Your task to perform on an android device: open sync settings in chrome Image 0: 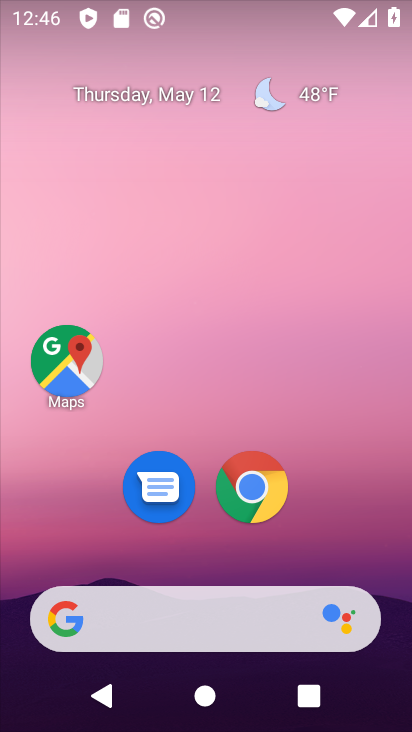
Step 0: click (249, 493)
Your task to perform on an android device: open sync settings in chrome Image 1: 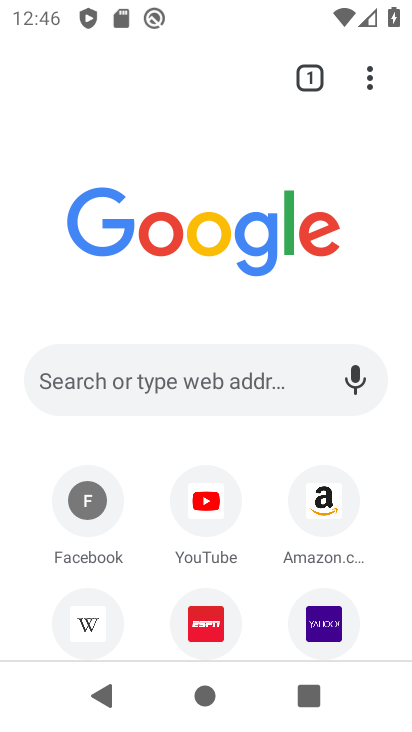
Step 1: click (379, 77)
Your task to perform on an android device: open sync settings in chrome Image 2: 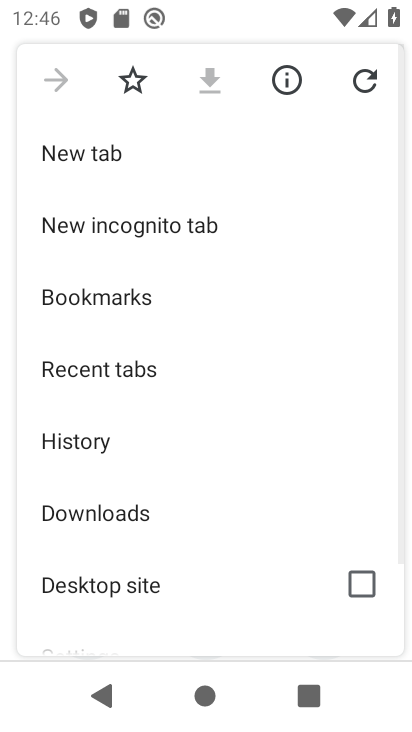
Step 2: drag from (200, 363) to (240, 46)
Your task to perform on an android device: open sync settings in chrome Image 3: 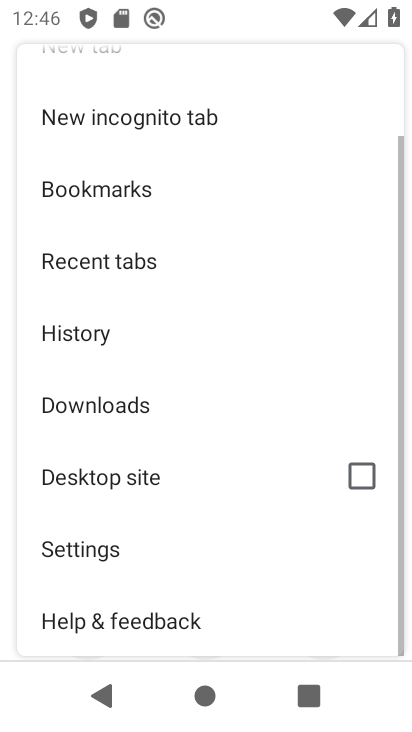
Step 3: click (130, 538)
Your task to perform on an android device: open sync settings in chrome Image 4: 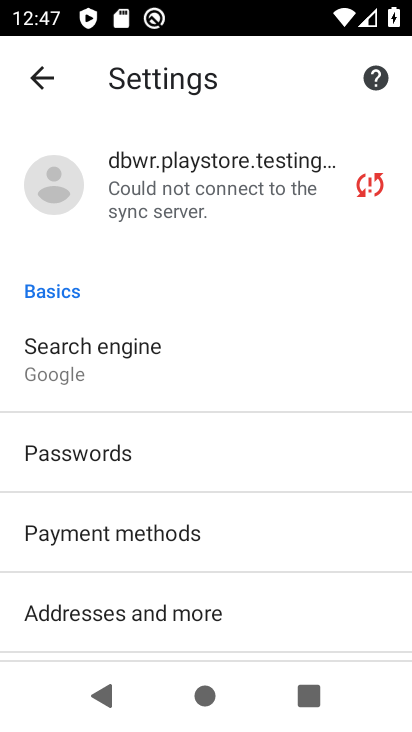
Step 4: drag from (197, 455) to (228, 252)
Your task to perform on an android device: open sync settings in chrome Image 5: 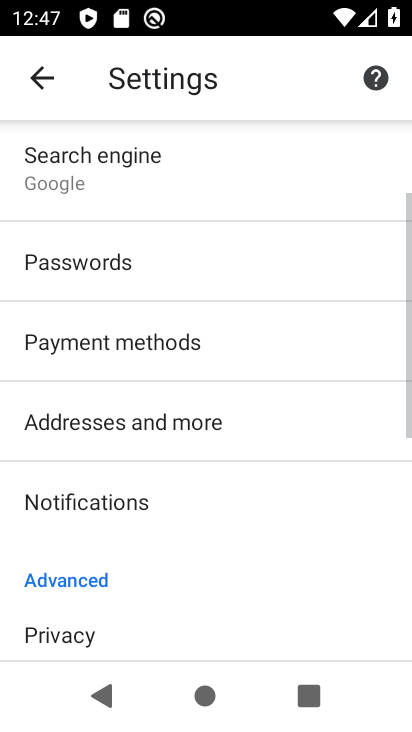
Step 5: drag from (226, 291) to (214, 602)
Your task to perform on an android device: open sync settings in chrome Image 6: 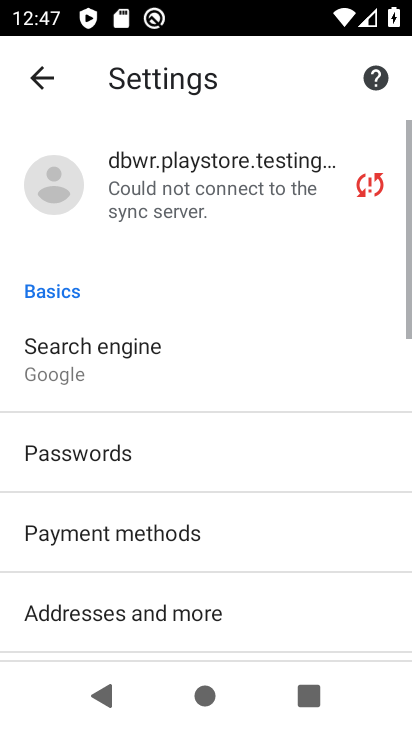
Step 6: click (221, 206)
Your task to perform on an android device: open sync settings in chrome Image 7: 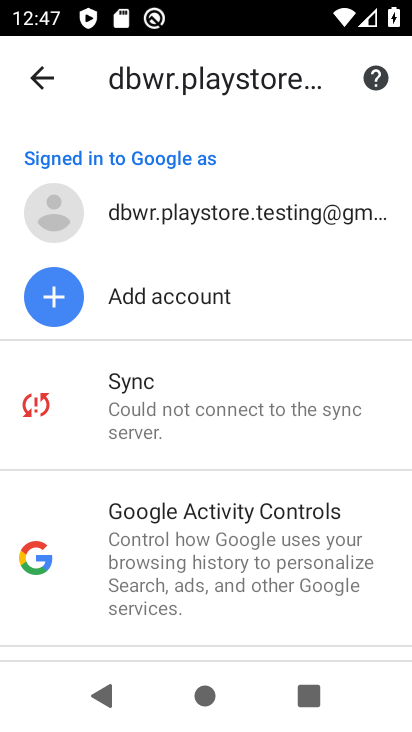
Step 7: click (182, 414)
Your task to perform on an android device: open sync settings in chrome Image 8: 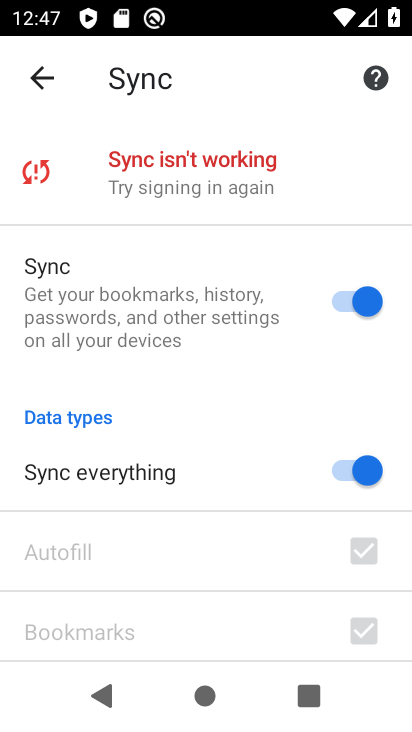
Step 8: task complete